Your task to perform on an android device: What's the weather? Image 0: 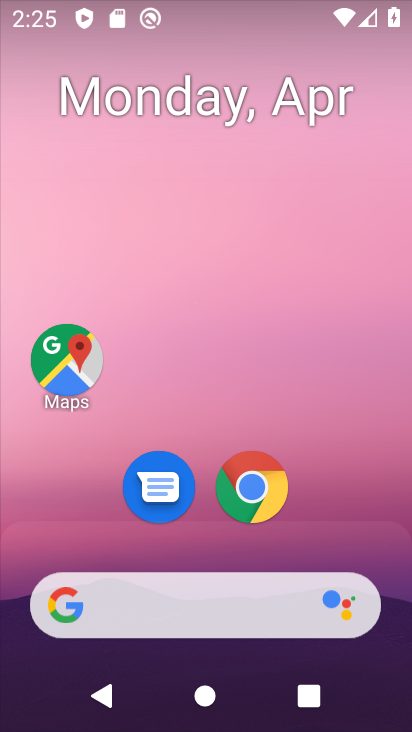
Step 0: drag from (320, 173) to (22, 157)
Your task to perform on an android device: What's the weather? Image 1: 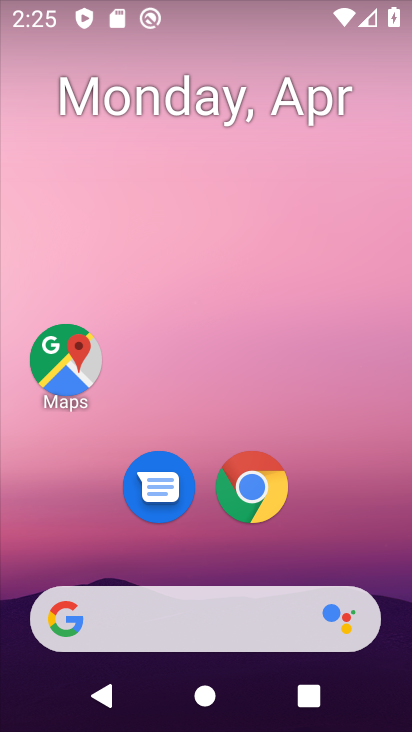
Step 1: drag from (374, 136) to (18, 164)
Your task to perform on an android device: What's the weather? Image 2: 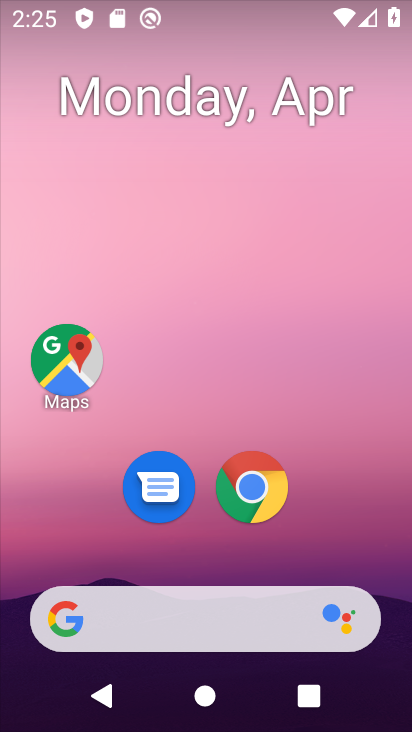
Step 2: drag from (404, 135) to (349, 213)
Your task to perform on an android device: What's the weather? Image 3: 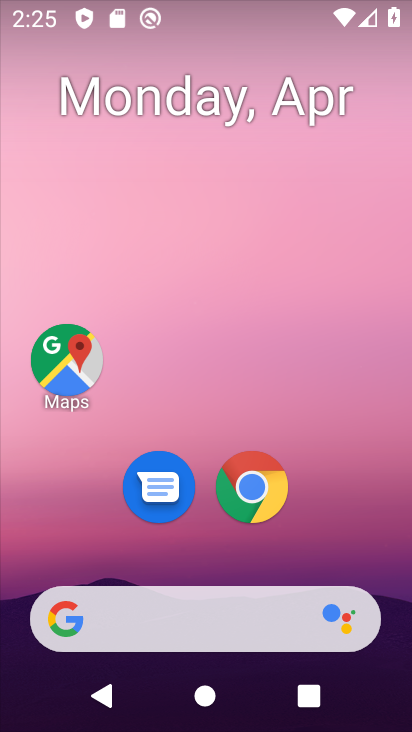
Step 3: drag from (212, 713) to (239, 188)
Your task to perform on an android device: What's the weather? Image 4: 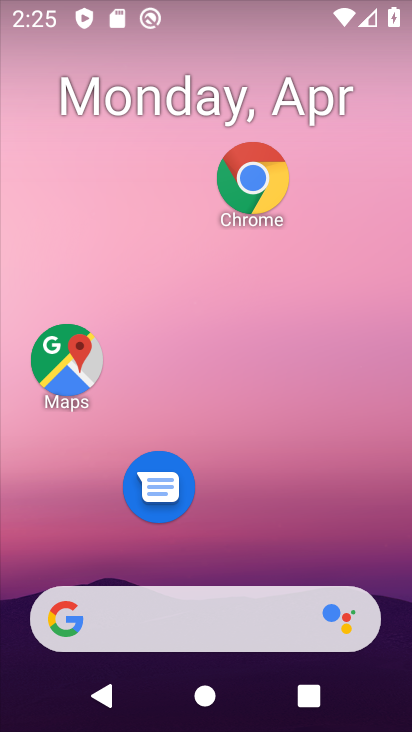
Step 4: drag from (192, 542) to (341, 28)
Your task to perform on an android device: What's the weather? Image 5: 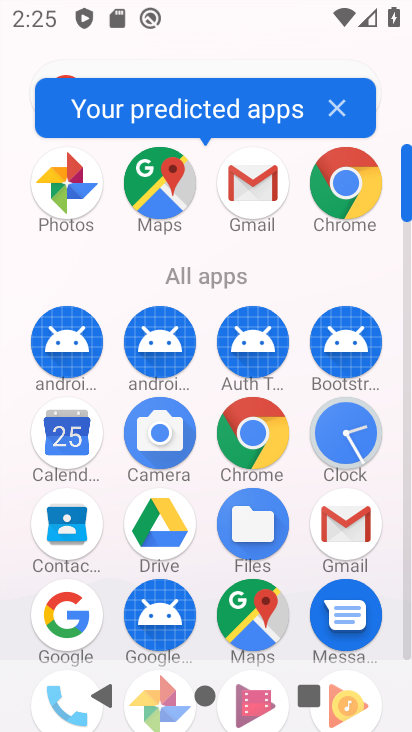
Step 5: drag from (257, 421) to (344, 35)
Your task to perform on an android device: What's the weather? Image 6: 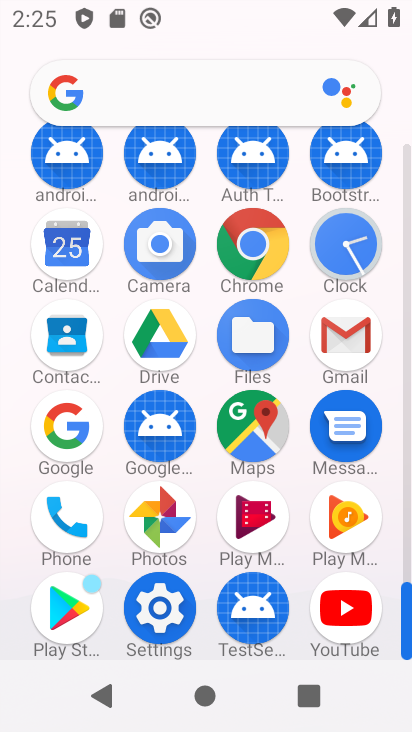
Step 6: click (159, 586)
Your task to perform on an android device: What's the weather? Image 7: 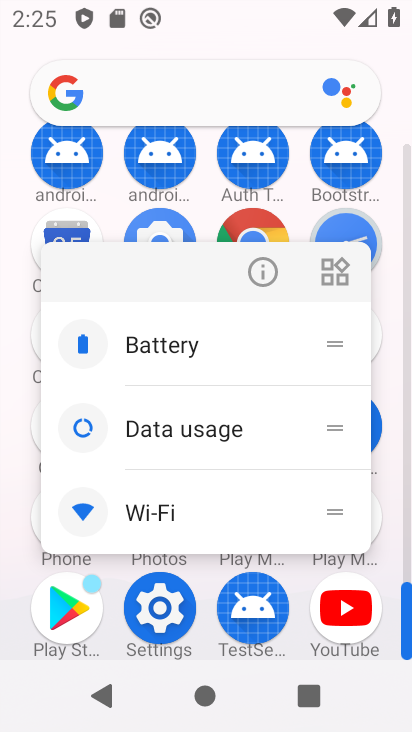
Step 7: click (159, 586)
Your task to perform on an android device: What's the weather? Image 8: 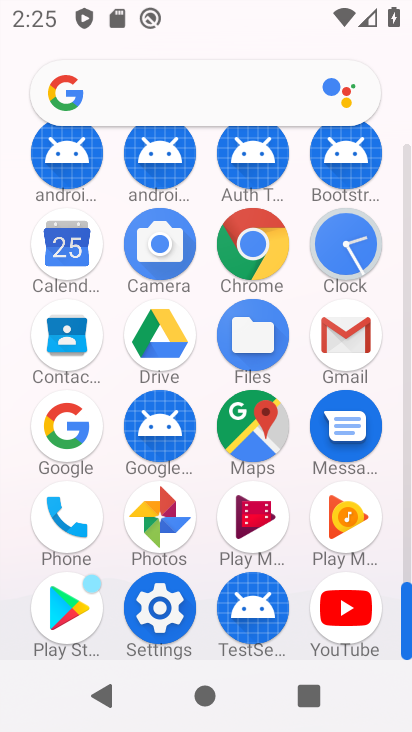
Step 8: click (159, 586)
Your task to perform on an android device: What's the weather? Image 9: 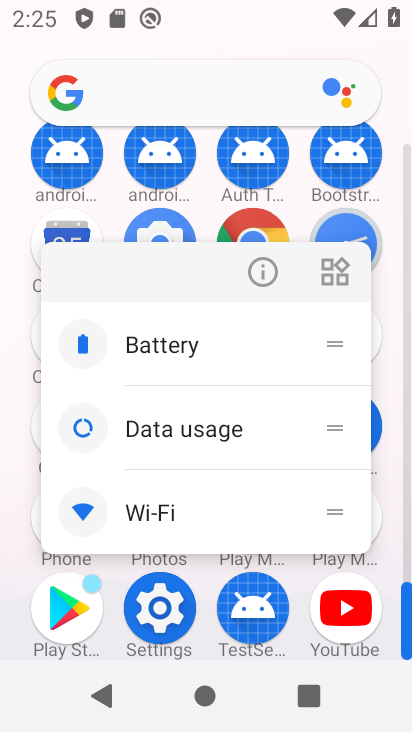
Step 9: click (159, 586)
Your task to perform on an android device: What's the weather? Image 10: 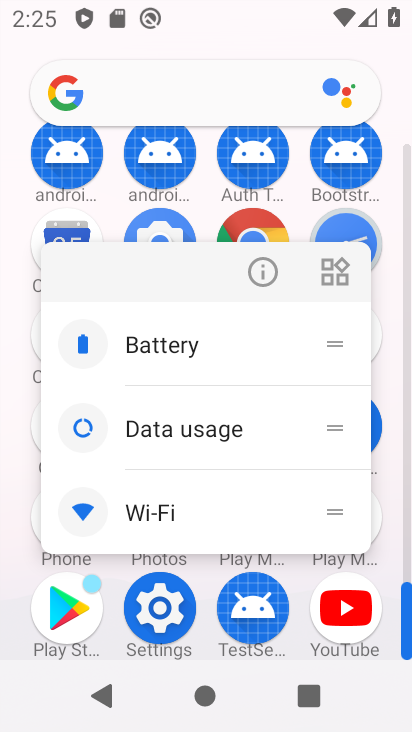
Step 10: click (159, 586)
Your task to perform on an android device: What's the weather? Image 11: 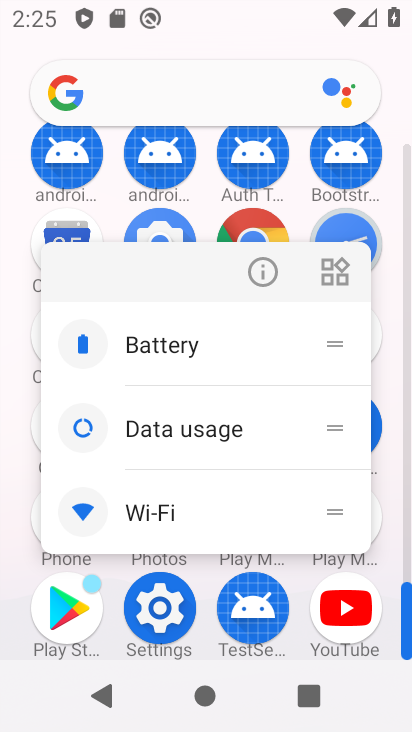
Step 11: click (159, 586)
Your task to perform on an android device: What's the weather? Image 12: 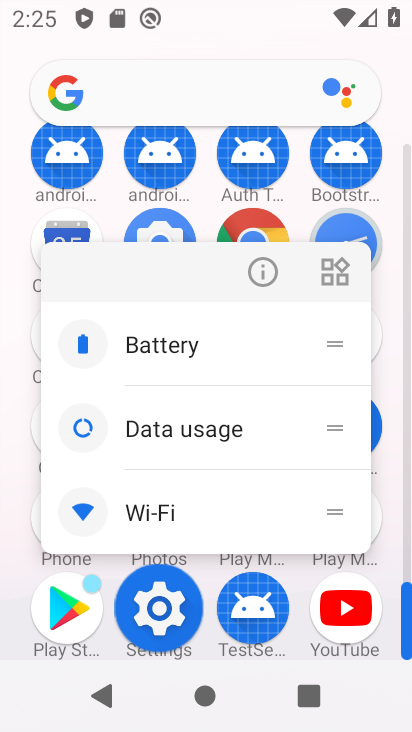
Step 12: click (159, 586)
Your task to perform on an android device: What's the weather? Image 13: 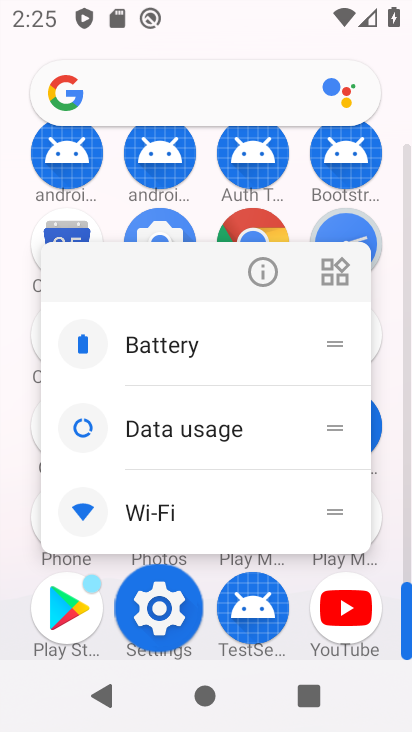
Step 13: click (159, 586)
Your task to perform on an android device: What's the weather? Image 14: 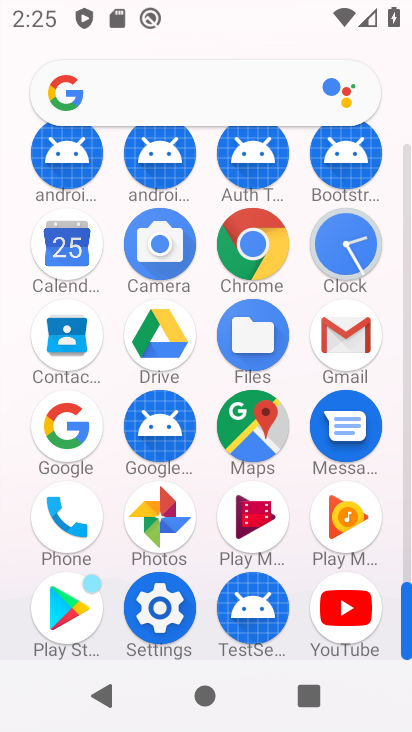
Step 14: click (159, 586)
Your task to perform on an android device: What's the weather? Image 15: 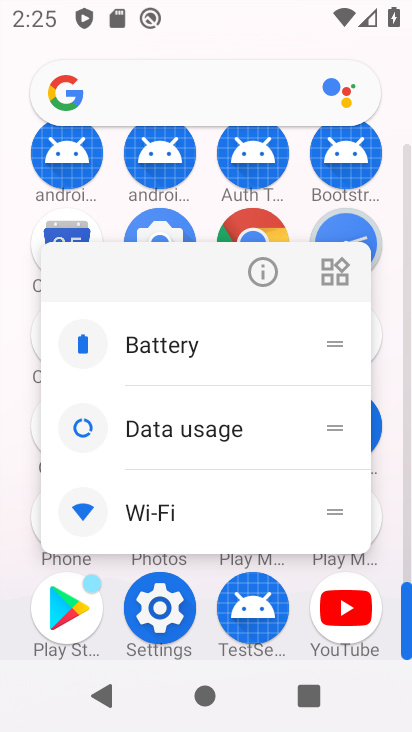
Step 15: click (159, 586)
Your task to perform on an android device: What's the weather? Image 16: 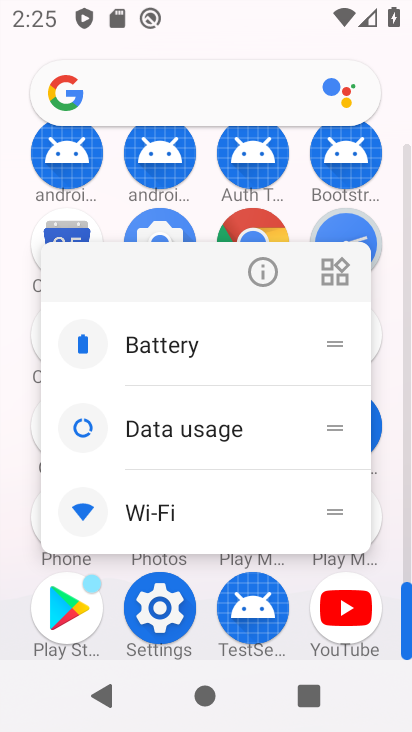
Step 16: click (159, 586)
Your task to perform on an android device: What's the weather? Image 17: 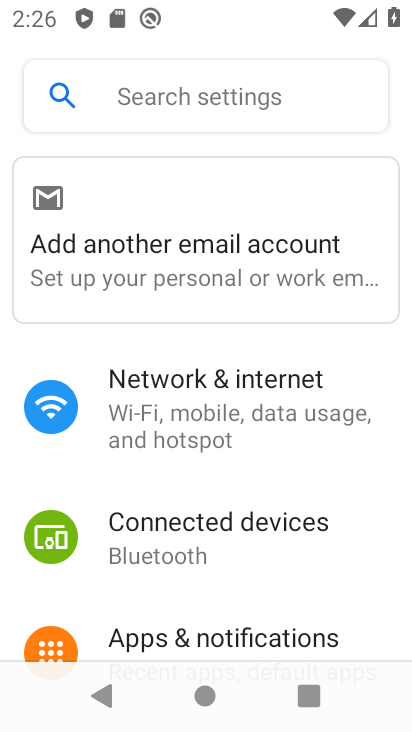
Step 17: click (113, 99)
Your task to perform on an android device: What's the weather? Image 18: 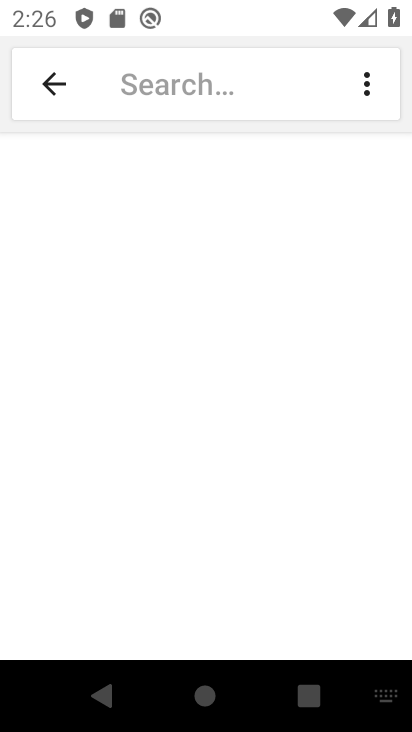
Step 18: type "weather"
Your task to perform on an android device: What's the weather? Image 19: 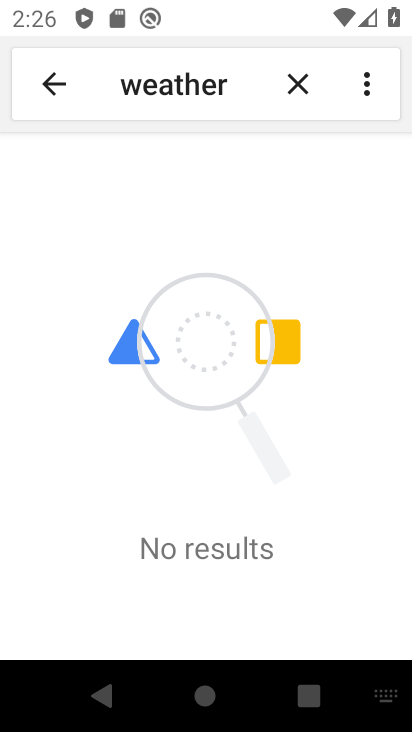
Step 19: task complete